Your task to perform on an android device: delete location history Image 0: 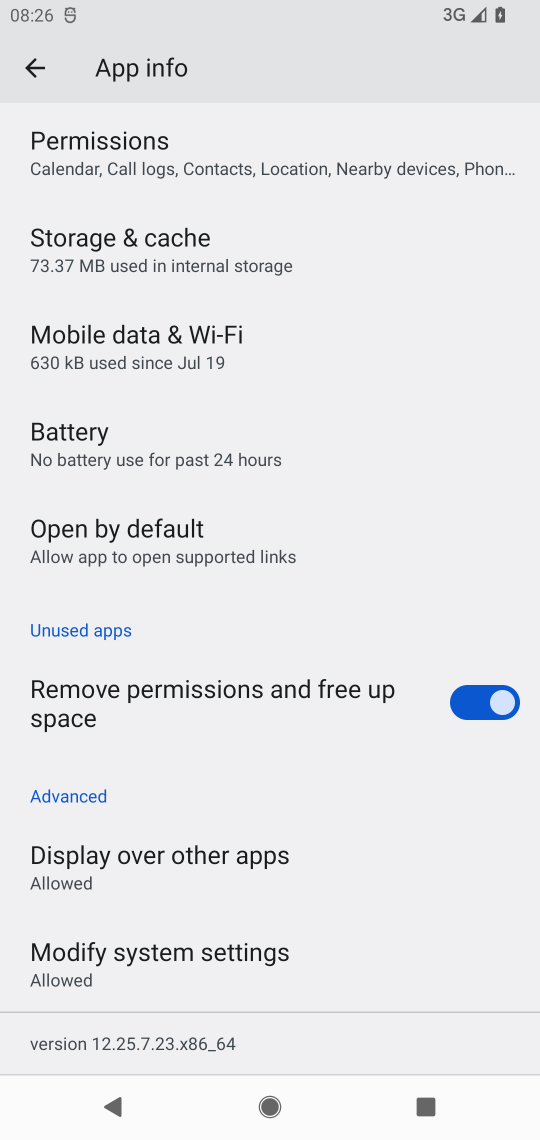
Step 0: press home button
Your task to perform on an android device: delete location history Image 1: 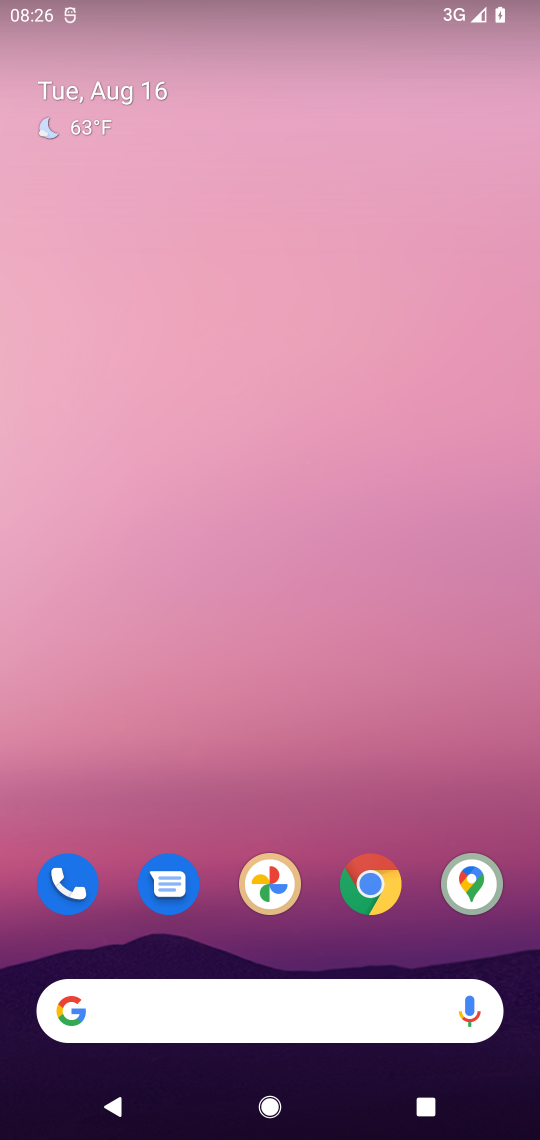
Step 1: drag from (329, 812) to (301, 1)
Your task to perform on an android device: delete location history Image 2: 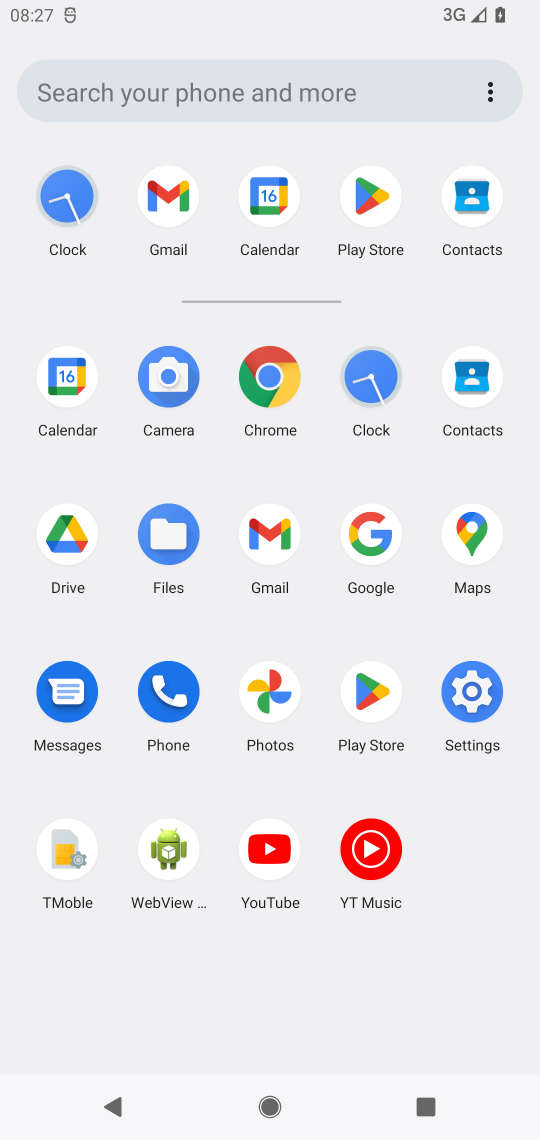
Step 2: click (460, 692)
Your task to perform on an android device: delete location history Image 3: 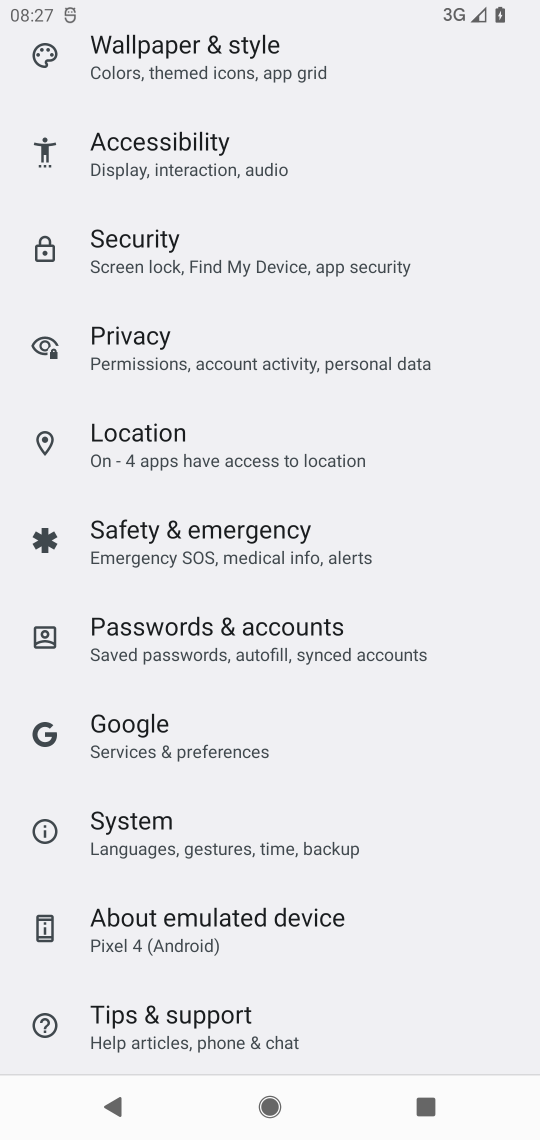
Step 3: drag from (363, 800) to (303, 1132)
Your task to perform on an android device: delete location history Image 4: 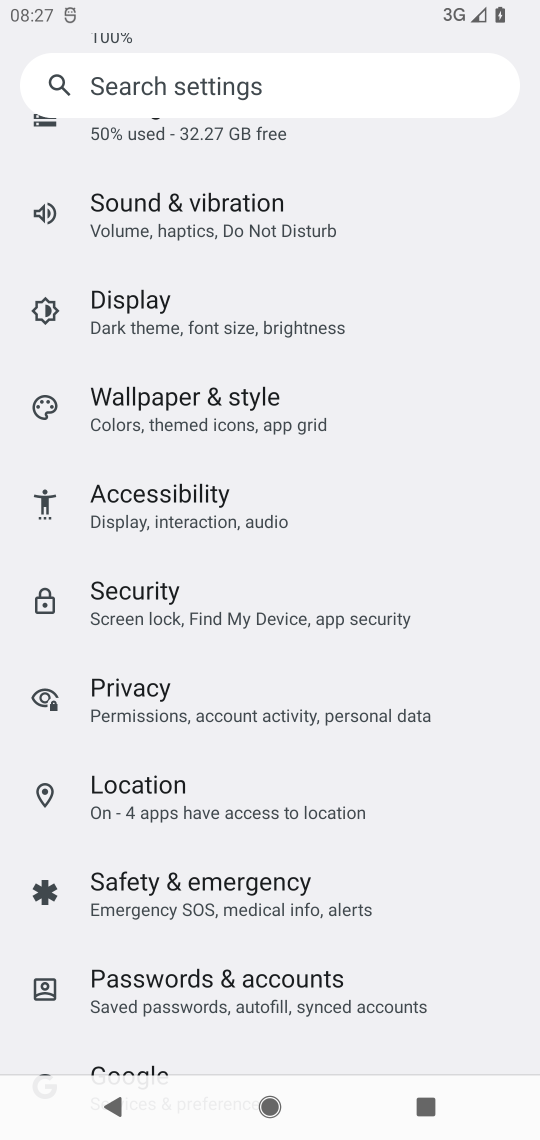
Step 4: drag from (176, 174) to (198, 252)
Your task to perform on an android device: delete location history Image 5: 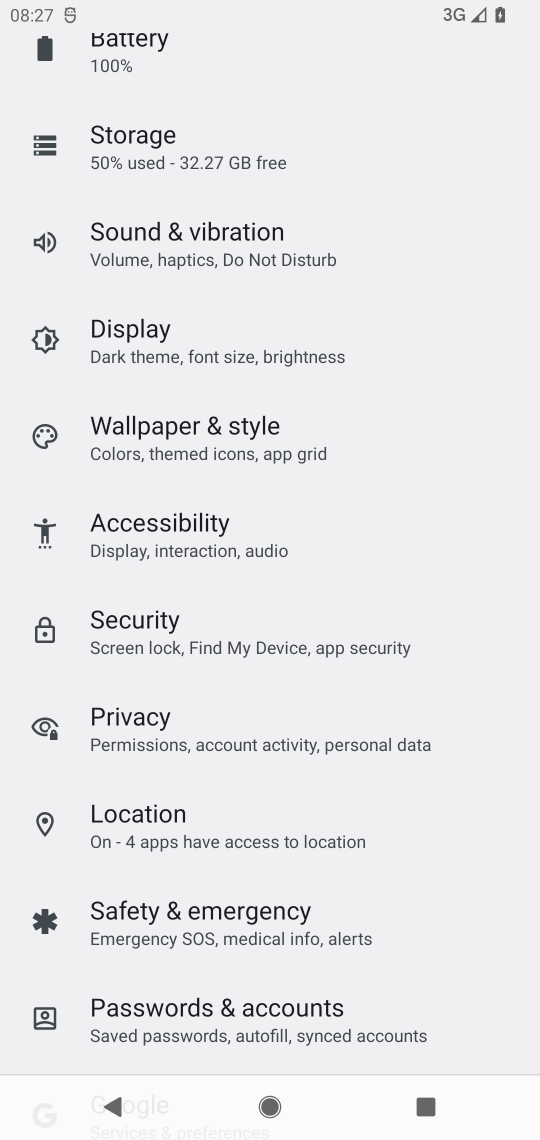
Step 5: click (126, 819)
Your task to perform on an android device: delete location history Image 6: 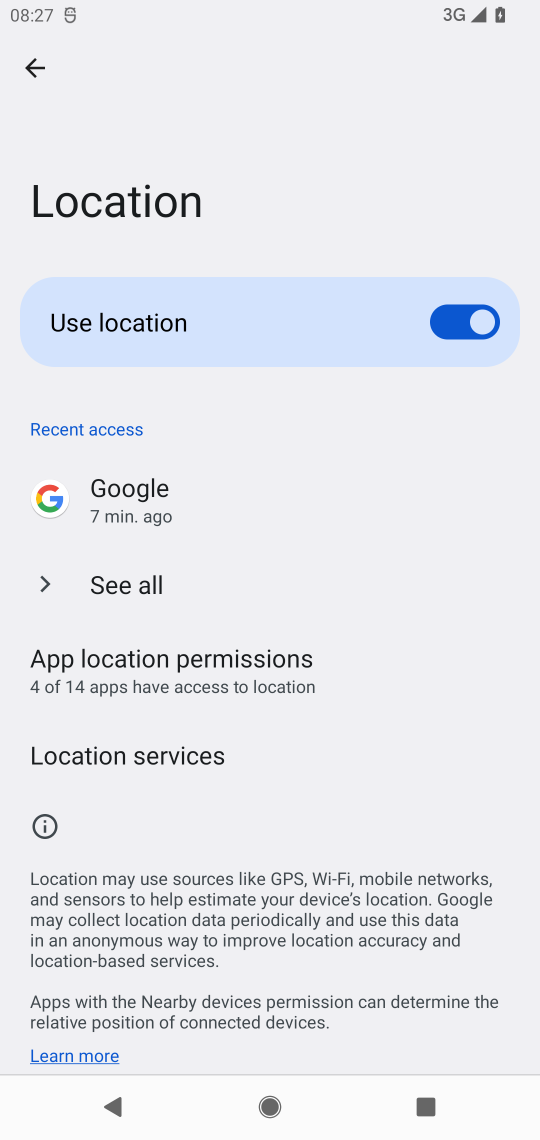
Step 6: click (130, 753)
Your task to perform on an android device: delete location history Image 7: 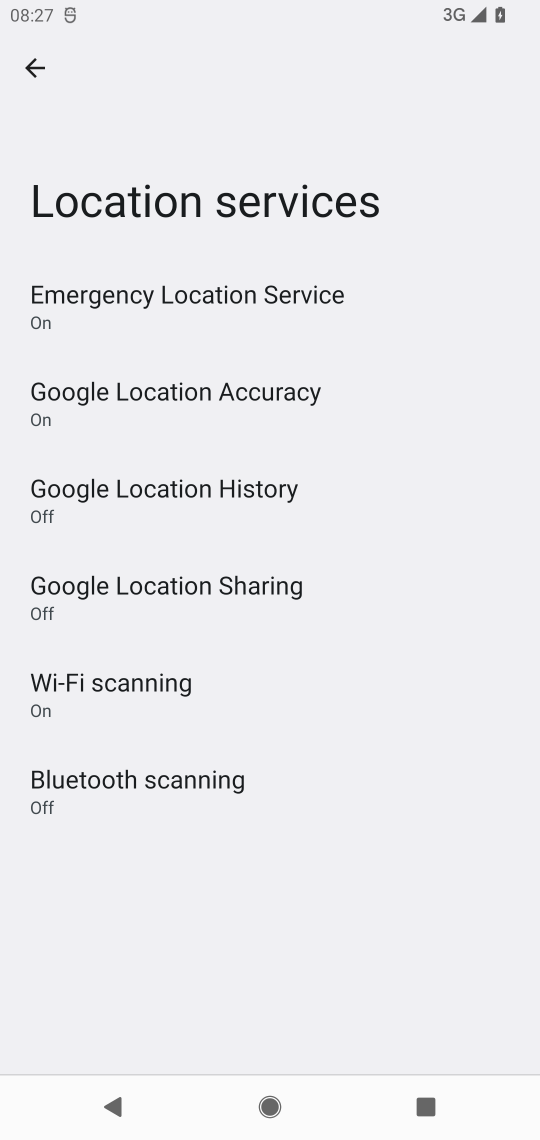
Step 7: click (165, 506)
Your task to perform on an android device: delete location history Image 8: 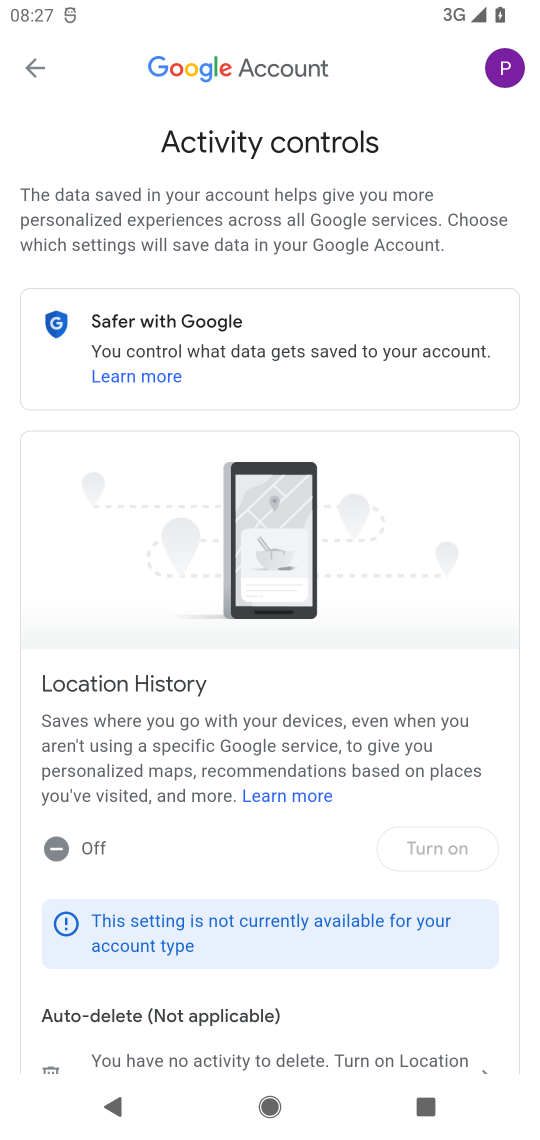
Step 8: drag from (246, 861) to (179, 367)
Your task to perform on an android device: delete location history Image 9: 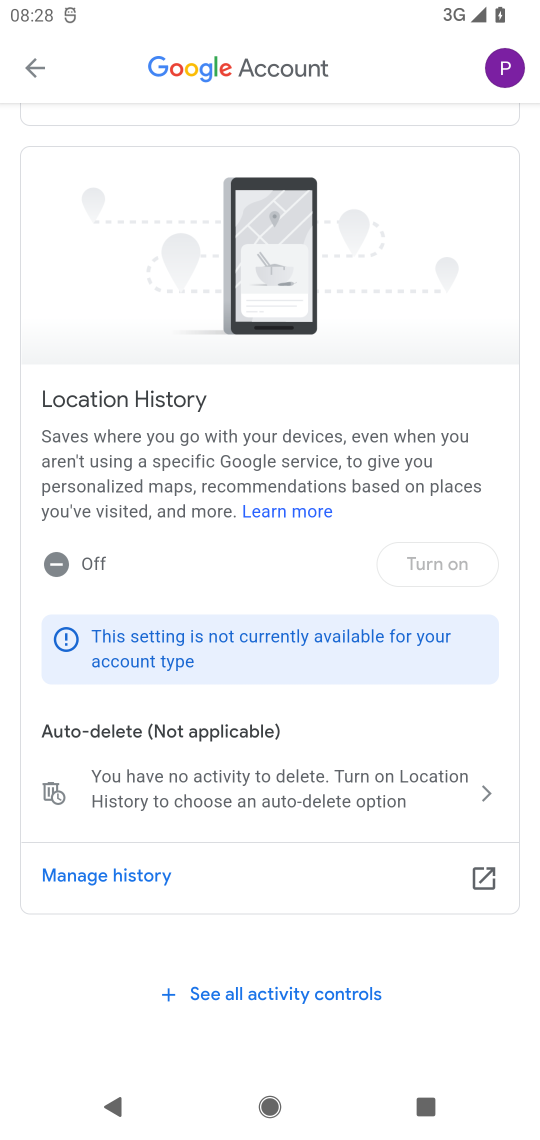
Step 9: click (45, 789)
Your task to perform on an android device: delete location history Image 10: 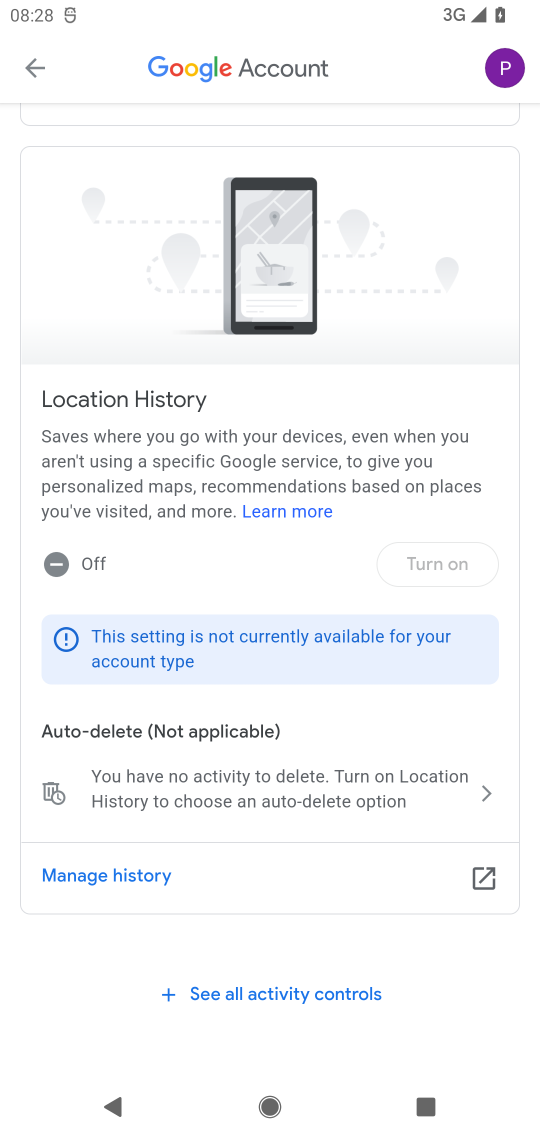
Step 10: click (56, 792)
Your task to perform on an android device: delete location history Image 11: 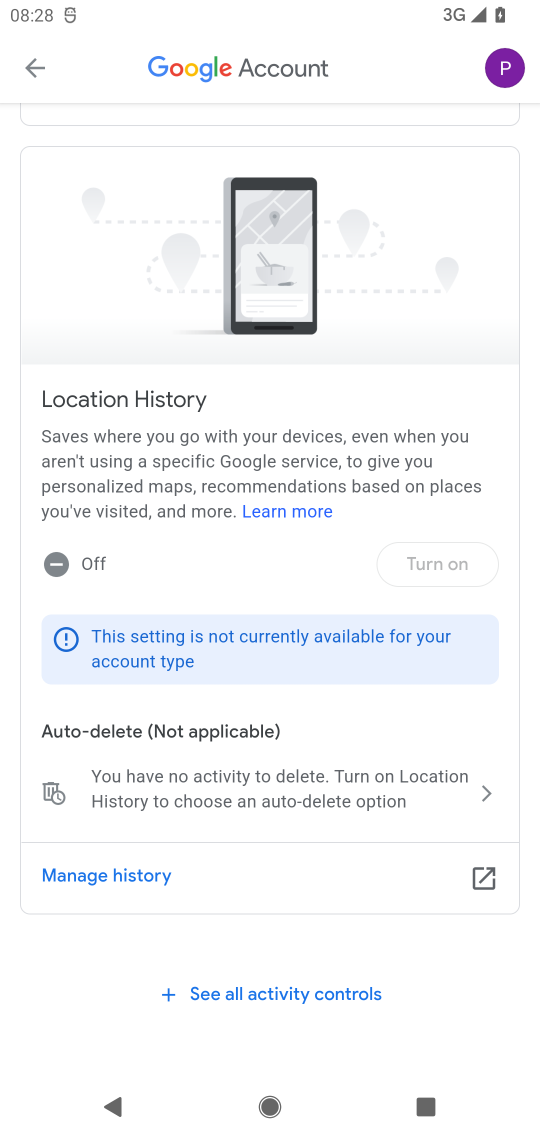
Step 11: task complete